Your task to perform on an android device: Play the last video I watched on Youtube Image 0: 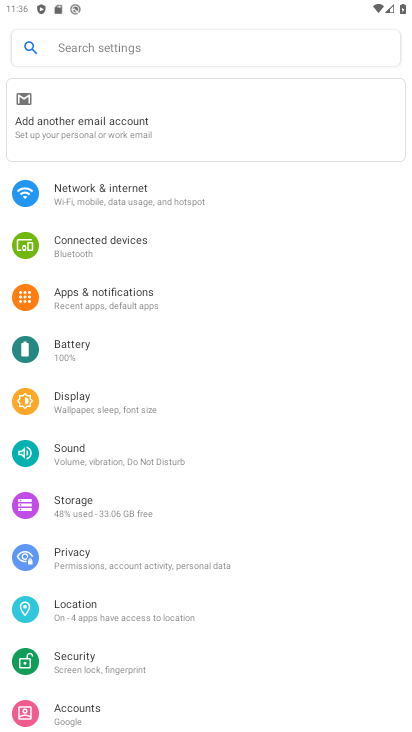
Step 0: press home button
Your task to perform on an android device: Play the last video I watched on Youtube Image 1: 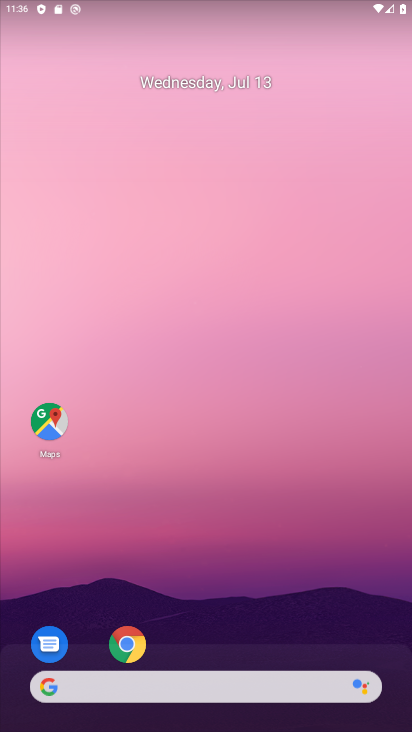
Step 1: drag from (249, 599) to (276, 70)
Your task to perform on an android device: Play the last video I watched on Youtube Image 2: 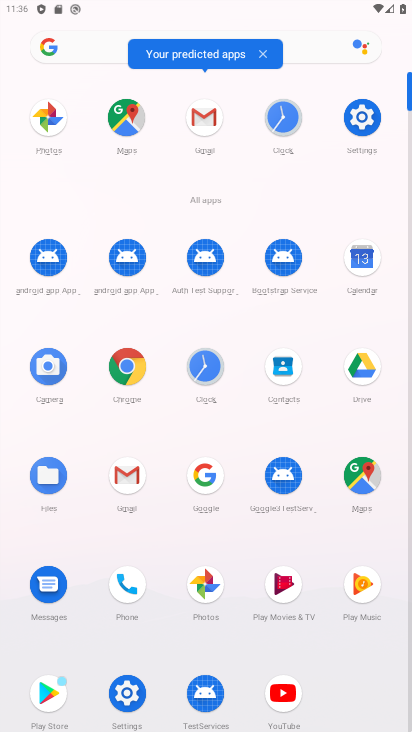
Step 2: click (285, 690)
Your task to perform on an android device: Play the last video I watched on Youtube Image 3: 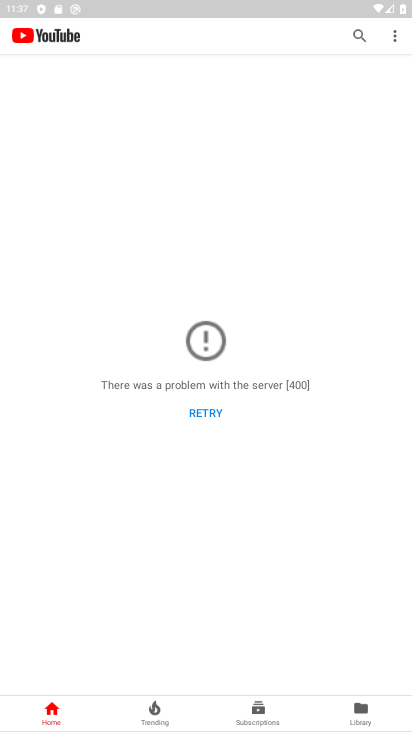
Step 3: task complete